Your task to perform on an android device: allow notifications from all sites in the chrome app Image 0: 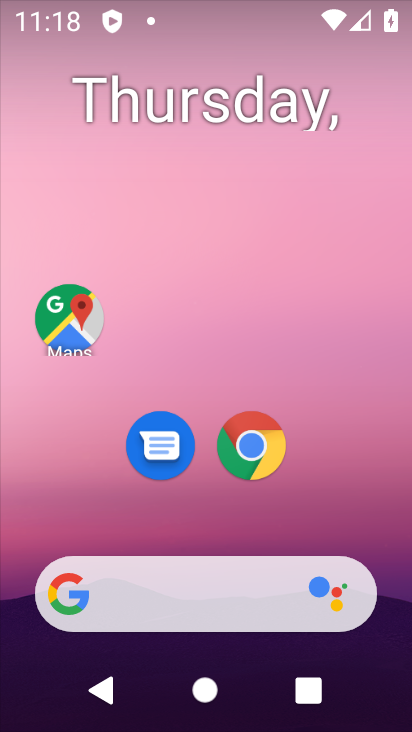
Step 0: drag from (336, 401) to (201, 168)
Your task to perform on an android device: allow notifications from all sites in the chrome app Image 1: 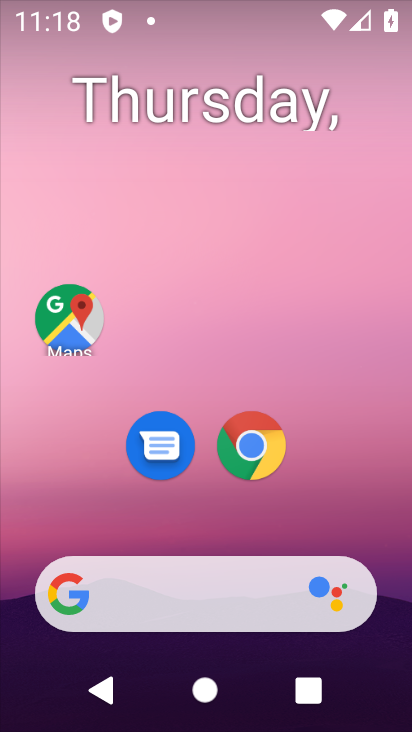
Step 1: drag from (339, 493) to (352, 125)
Your task to perform on an android device: allow notifications from all sites in the chrome app Image 2: 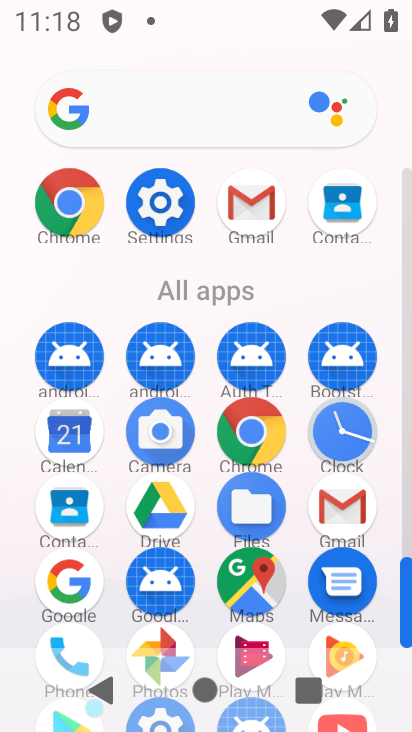
Step 2: click (68, 206)
Your task to perform on an android device: allow notifications from all sites in the chrome app Image 3: 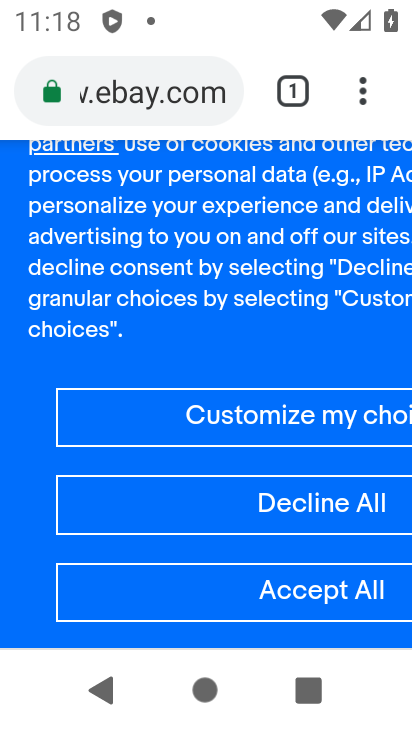
Step 3: drag from (364, 100) to (111, 462)
Your task to perform on an android device: allow notifications from all sites in the chrome app Image 4: 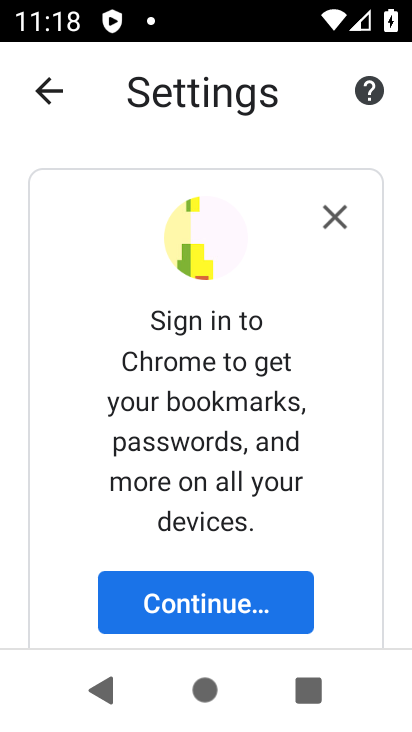
Step 4: click (238, 606)
Your task to perform on an android device: allow notifications from all sites in the chrome app Image 5: 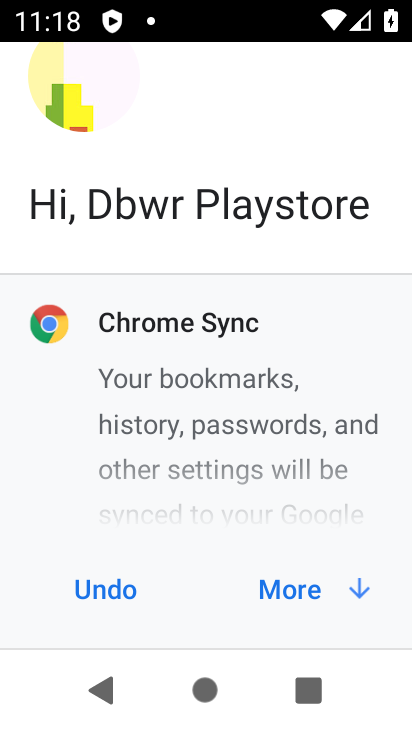
Step 5: click (296, 596)
Your task to perform on an android device: allow notifications from all sites in the chrome app Image 6: 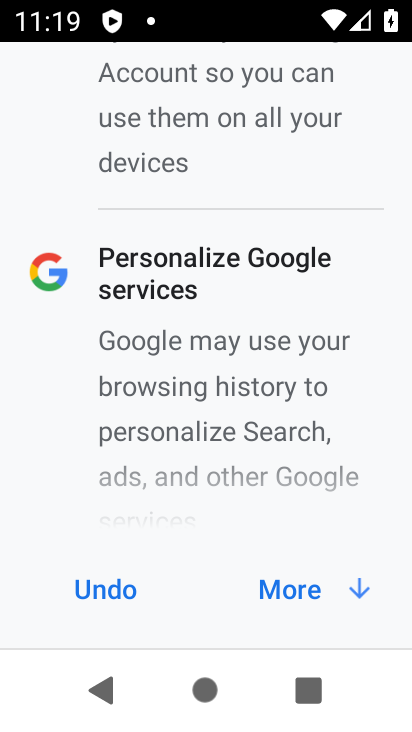
Step 6: click (292, 598)
Your task to perform on an android device: allow notifications from all sites in the chrome app Image 7: 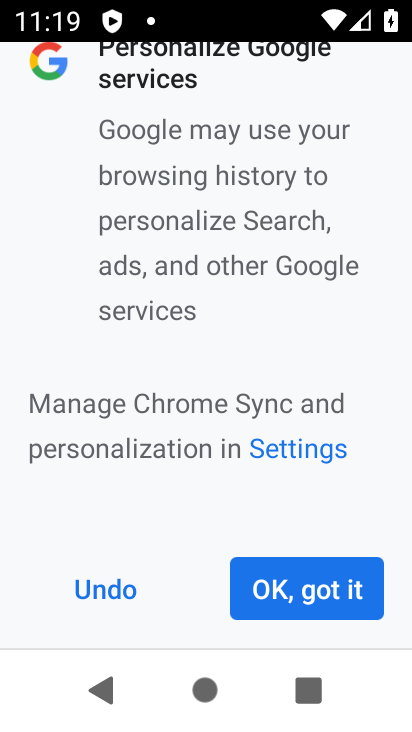
Step 7: click (292, 598)
Your task to perform on an android device: allow notifications from all sites in the chrome app Image 8: 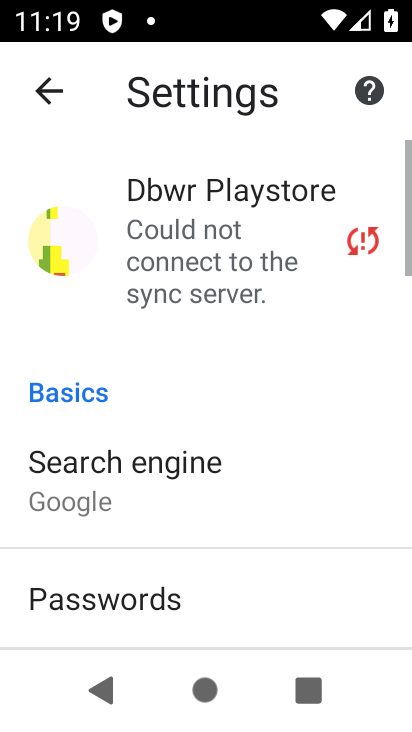
Step 8: drag from (270, 538) to (313, 214)
Your task to perform on an android device: allow notifications from all sites in the chrome app Image 9: 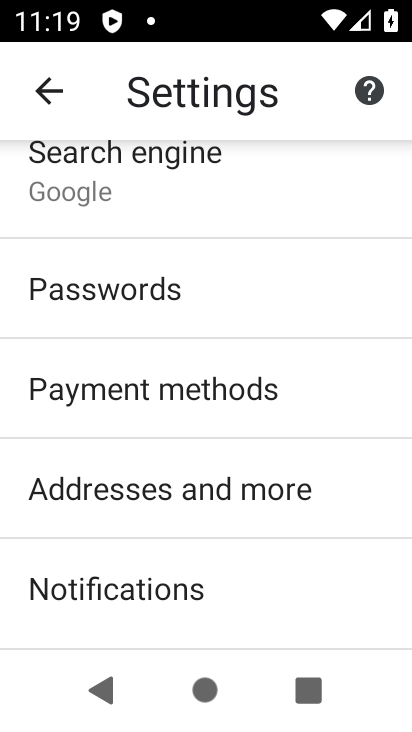
Step 9: drag from (248, 588) to (216, 205)
Your task to perform on an android device: allow notifications from all sites in the chrome app Image 10: 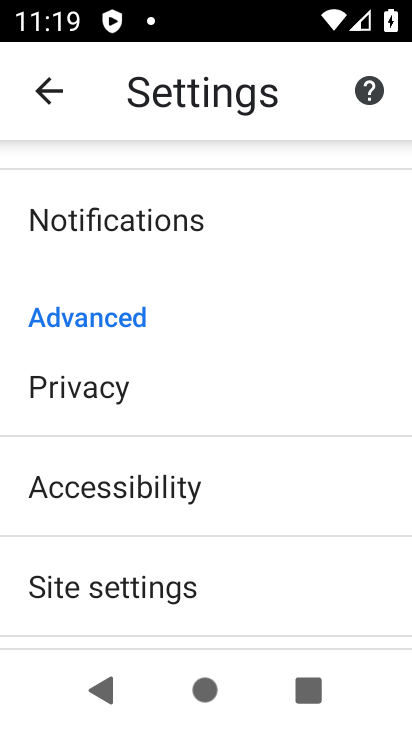
Step 10: click (196, 580)
Your task to perform on an android device: allow notifications from all sites in the chrome app Image 11: 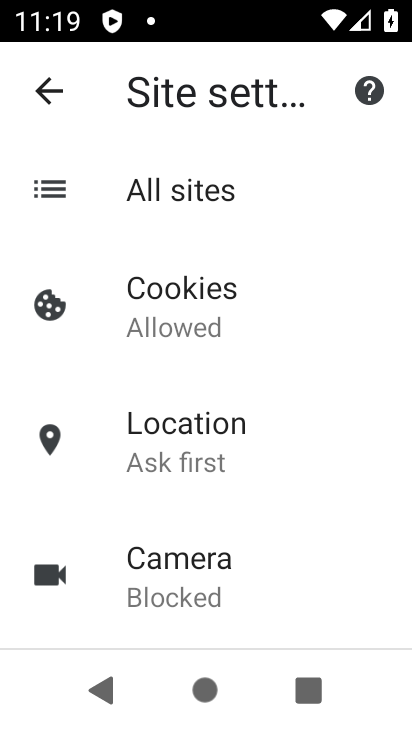
Step 11: drag from (234, 538) to (275, 176)
Your task to perform on an android device: allow notifications from all sites in the chrome app Image 12: 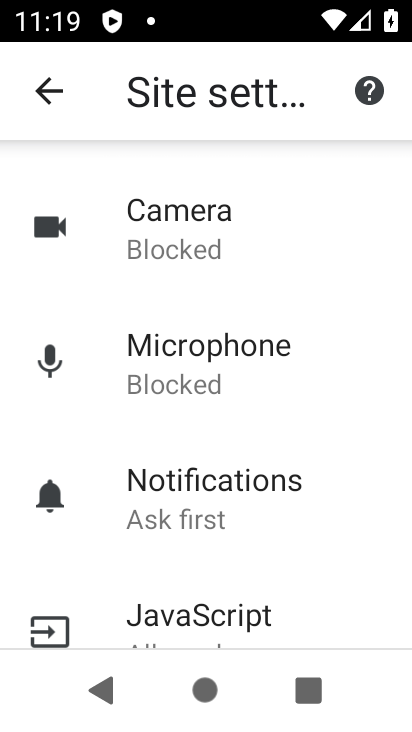
Step 12: click (203, 482)
Your task to perform on an android device: allow notifications from all sites in the chrome app Image 13: 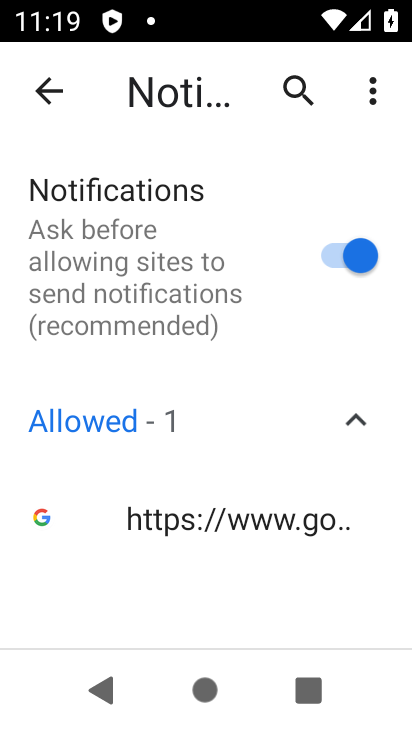
Step 13: task complete